Your task to perform on an android device: Go to settings Image 0: 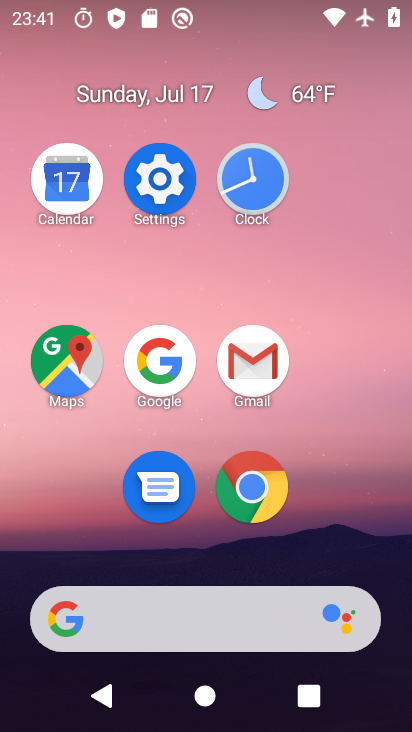
Step 0: click (170, 178)
Your task to perform on an android device: Go to settings Image 1: 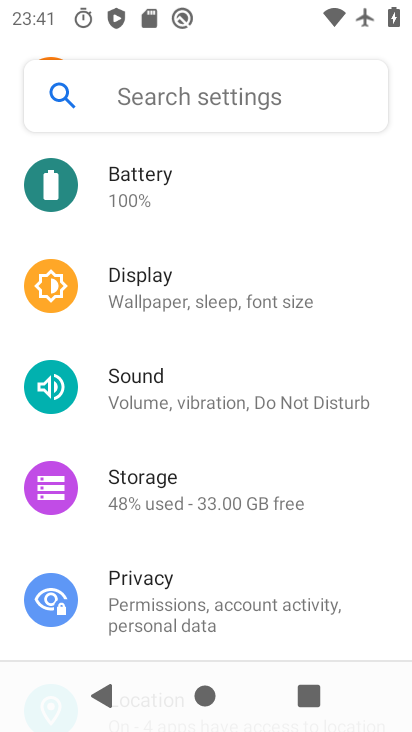
Step 1: task complete